Your task to perform on an android device: Turn off the flashlight Image 0: 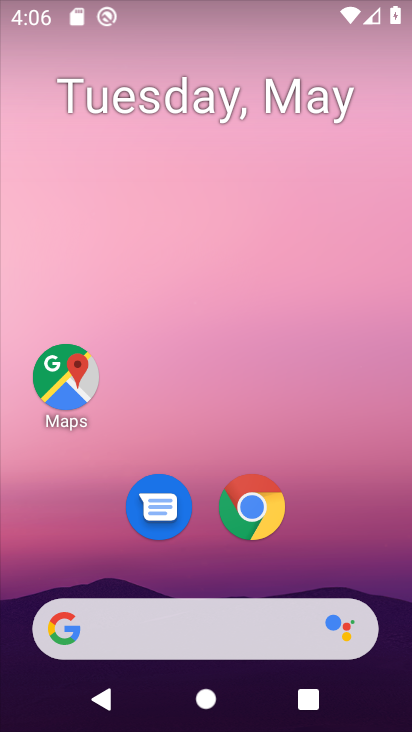
Step 0: drag from (218, 572) to (226, 75)
Your task to perform on an android device: Turn off the flashlight Image 1: 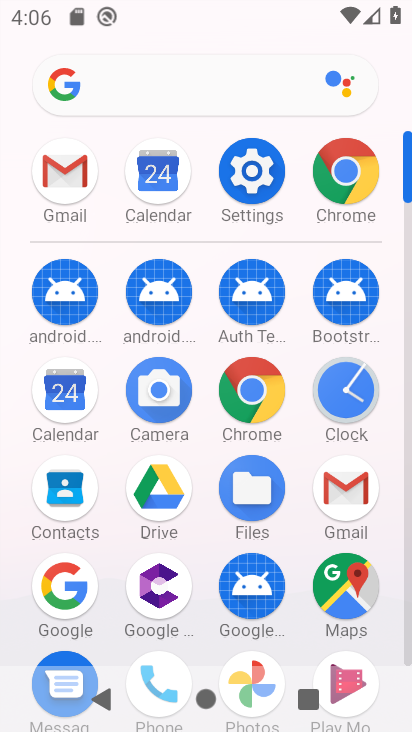
Step 1: click (250, 173)
Your task to perform on an android device: Turn off the flashlight Image 2: 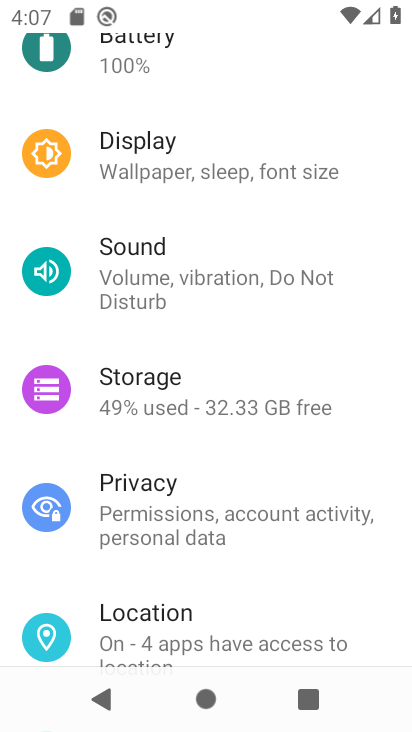
Step 2: task complete